Your task to perform on an android device: Turn off the flashlight Image 0: 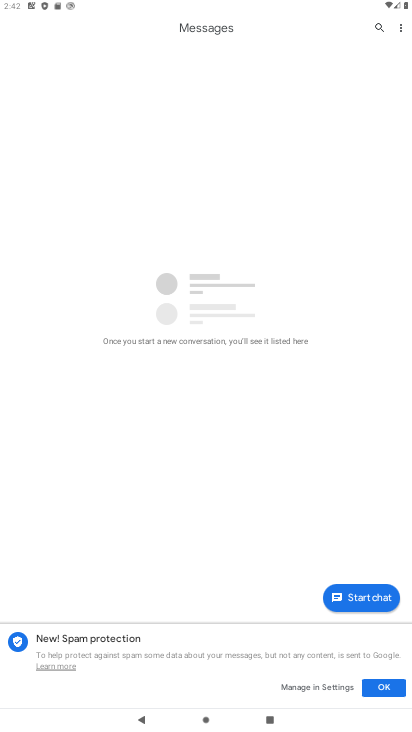
Step 0: press back button
Your task to perform on an android device: Turn off the flashlight Image 1: 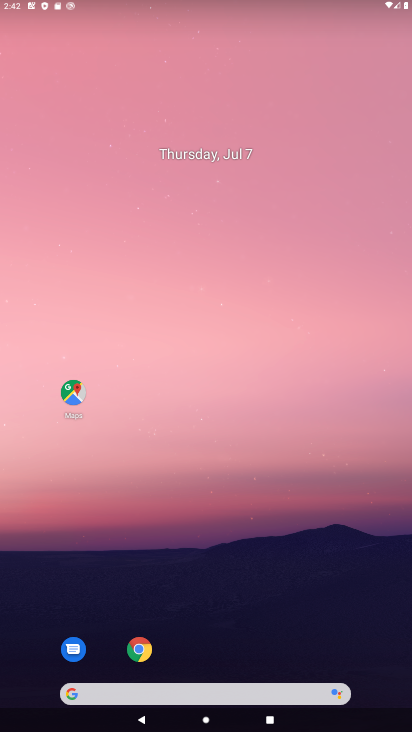
Step 1: drag from (194, 710) to (225, 115)
Your task to perform on an android device: Turn off the flashlight Image 2: 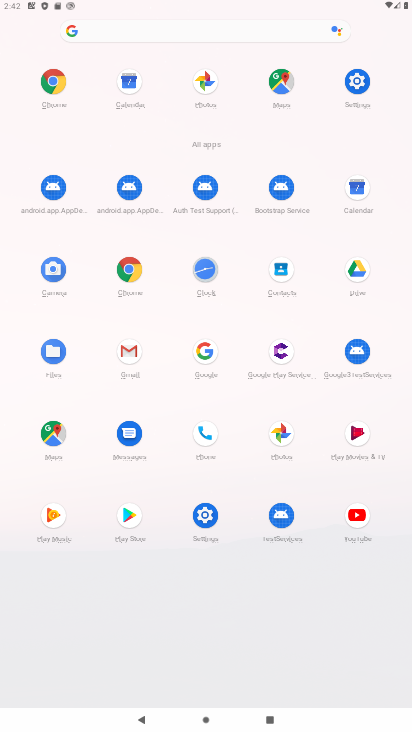
Step 2: click (354, 78)
Your task to perform on an android device: Turn off the flashlight Image 3: 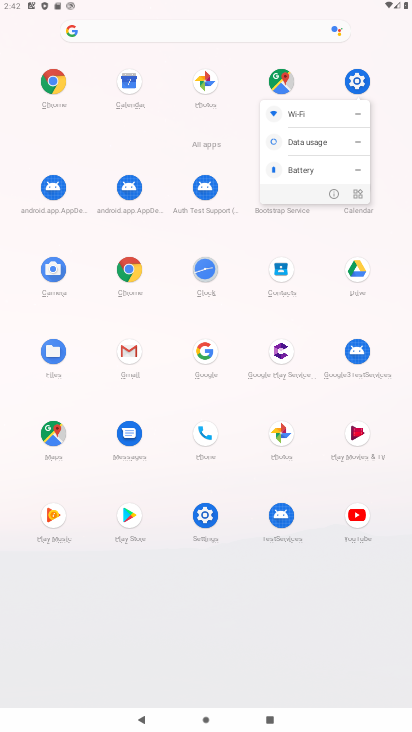
Step 3: click (353, 78)
Your task to perform on an android device: Turn off the flashlight Image 4: 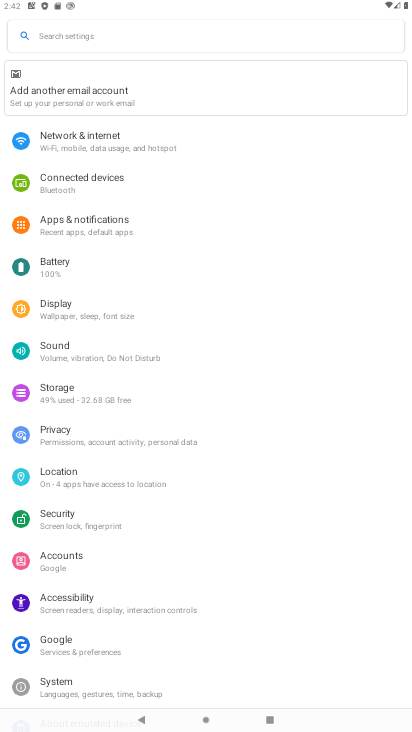
Step 4: click (97, 35)
Your task to perform on an android device: Turn off the flashlight Image 5: 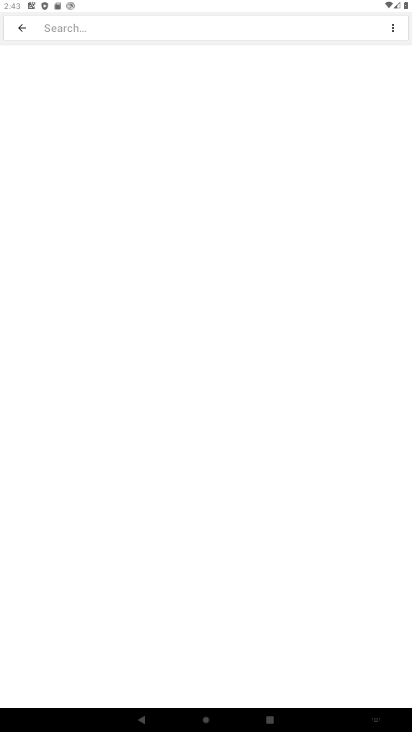
Step 5: type "flashlight"
Your task to perform on an android device: Turn off the flashlight Image 6: 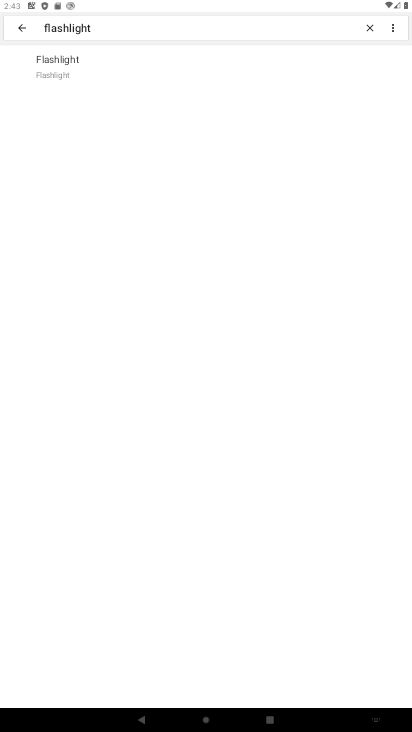
Step 6: task complete